Your task to perform on an android device: Set the phone to "Do not disturb". Image 0: 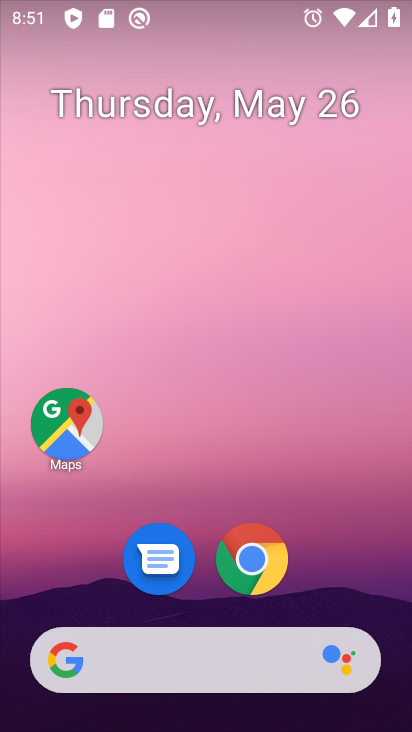
Step 0: drag from (224, 614) to (267, 128)
Your task to perform on an android device: Set the phone to "Do not disturb". Image 1: 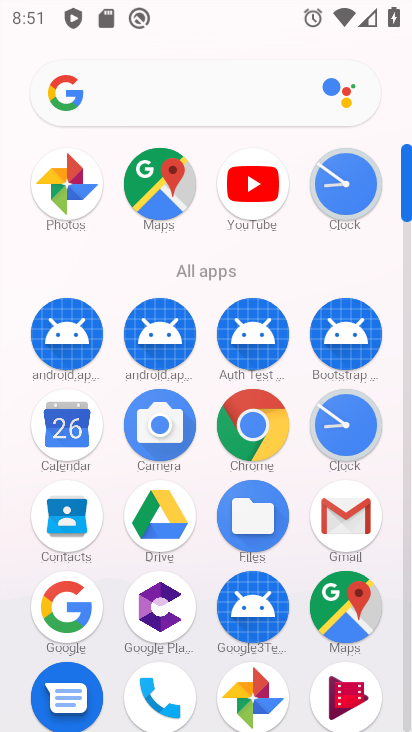
Step 1: drag from (201, 527) to (251, 248)
Your task to perform on an android device: Set the phone to "Do not disturb". Image 2: 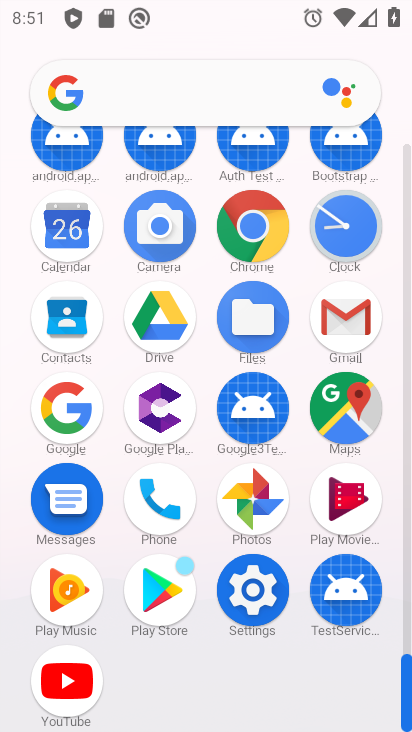
Step 2: click (252, 601)
Your task to perform on an android device: Set the phone to "Do not disturb". Image 3: 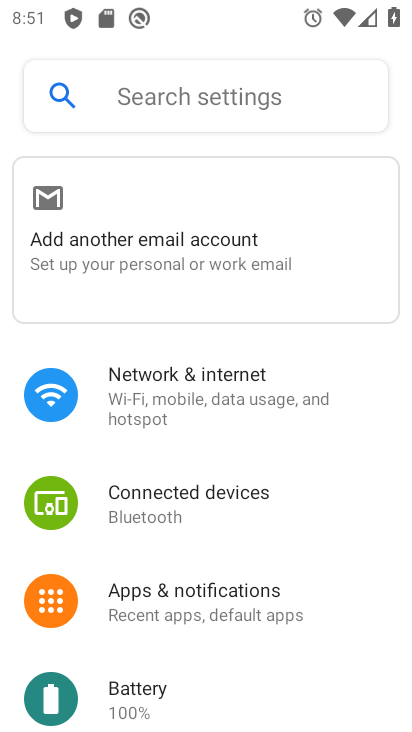
Step 3: drag from (261, 627) to (332, 244)
Your task to perform on an android device: Set the phone to "Do not disturb". Image 4: 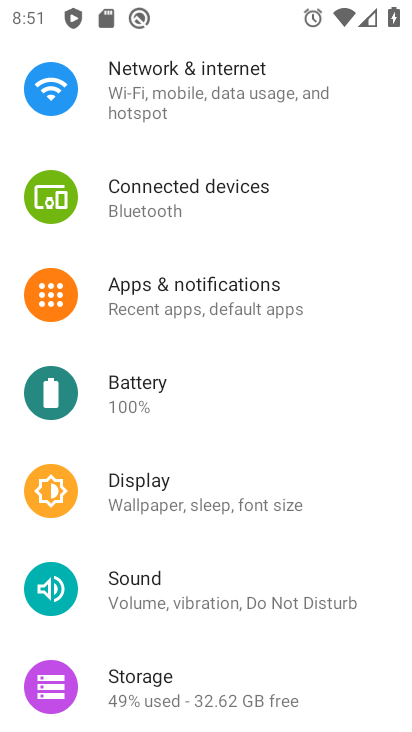
Step 4: click (186, 582)
Your task to perform on an android device: Set the phone to "Do not disturb". Image 5: 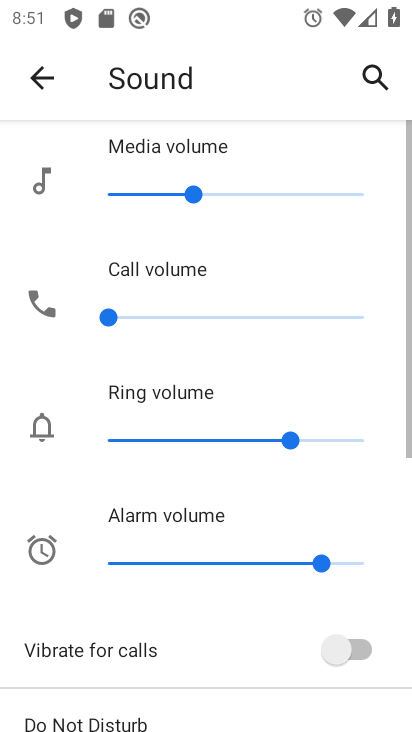
Step 5: drag from (211, 678) to (248, 329)
Your task to perform on an android device: Set the phone to "Do not disturb". Image 6: 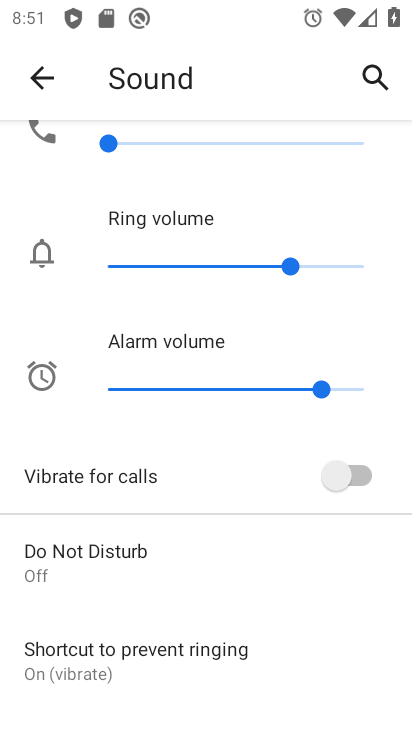
Step 6: click (71, 563)
Your task to perform on an android device: Set the phone to "Do not disturb". Image 7: 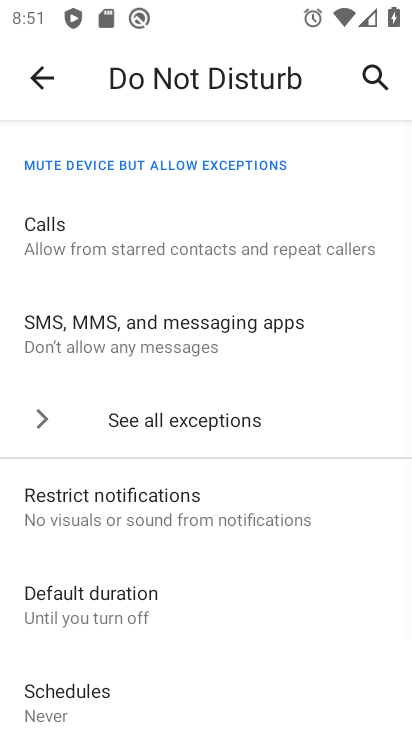
Step 7: drag from (191, 638) to (245, 277)
Your task to perform on an android device: Set the phone to "Do not disturb". Image 8: 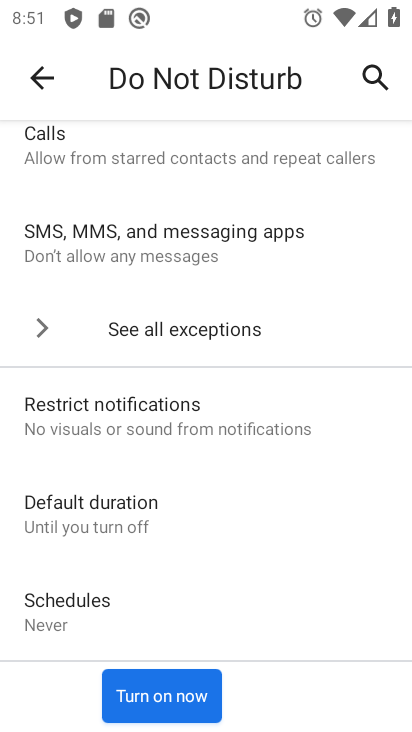
Step 8: click (170, 690)
Your task to perform on an android device: Set the phone to "Do not disturb". Image 9: 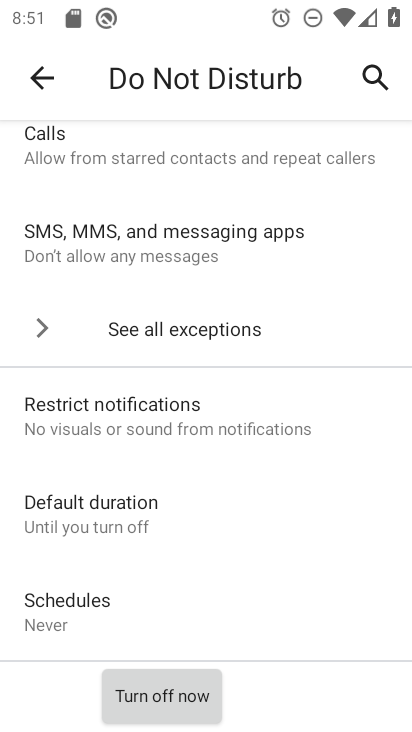
Step 9: task complete